Your task to perform on an android device: turn on showing notifications on the lock screen Image 0: 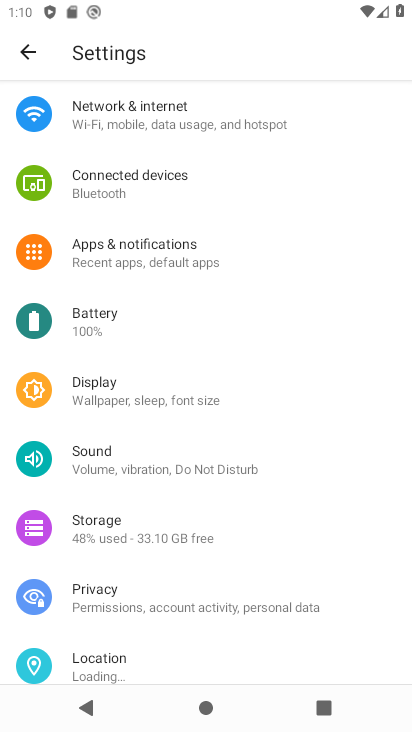
Step 0: click (279, 274)
Your task to perform on an android device: turn on showing notifications on the lock screen Image 1: 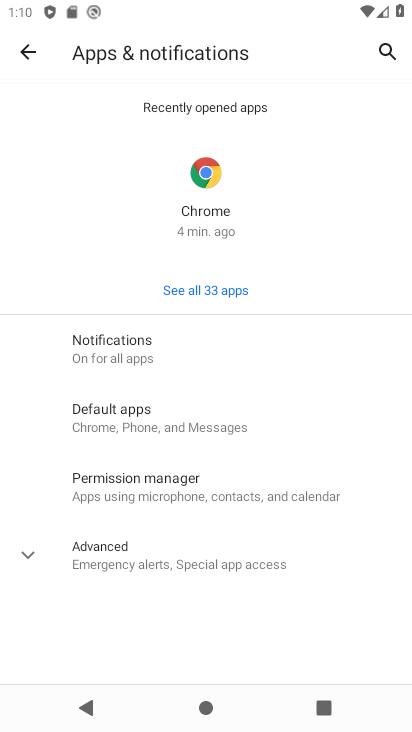
Step 1: click (149, 341)
Your task to perform on an android device: turn on showing notifications on the lock screen Image 2: 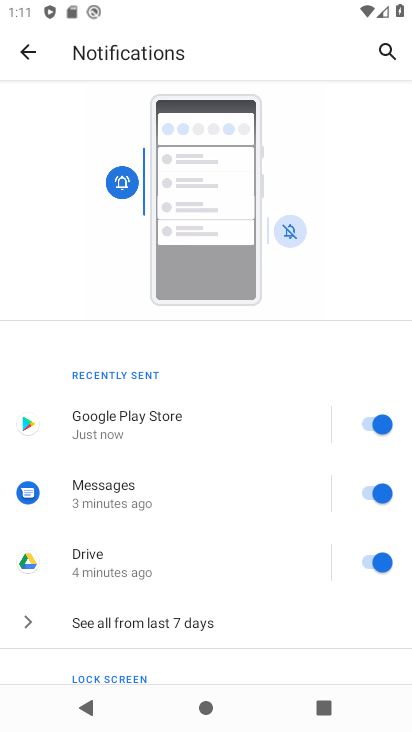
Step 2: drag from (182, 579) to (313, 250)
Your task to perform on an android device: turn on showing notifications on the lock screen Image 3: 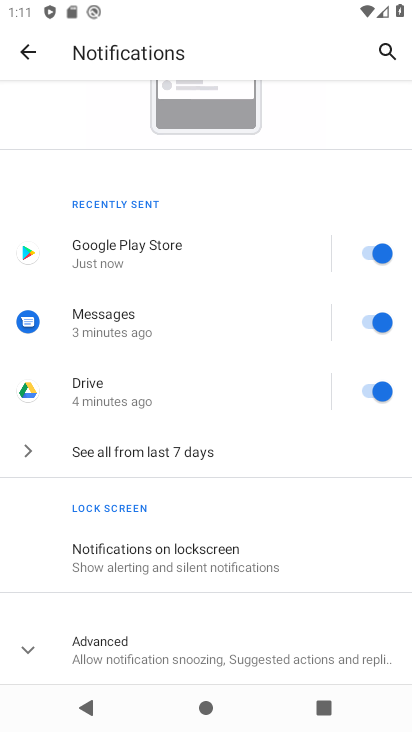
Step 3: click (238, 557)
Your task to perform on an android device: turn on showing notifications on the lock screen Image 4: 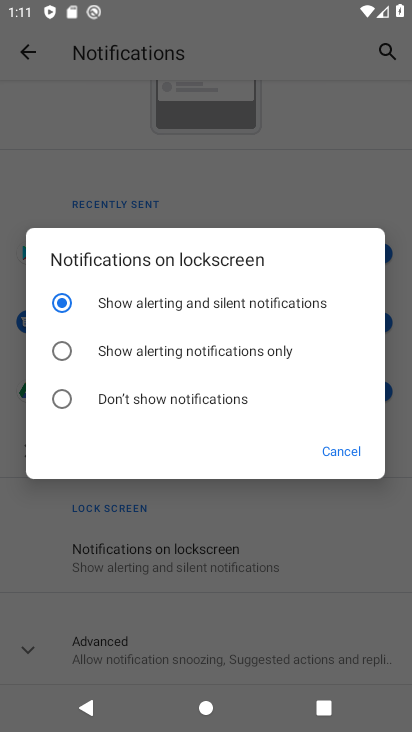
Step 4: task complete